Your task to perform on an android device: turn on location history Image 0: 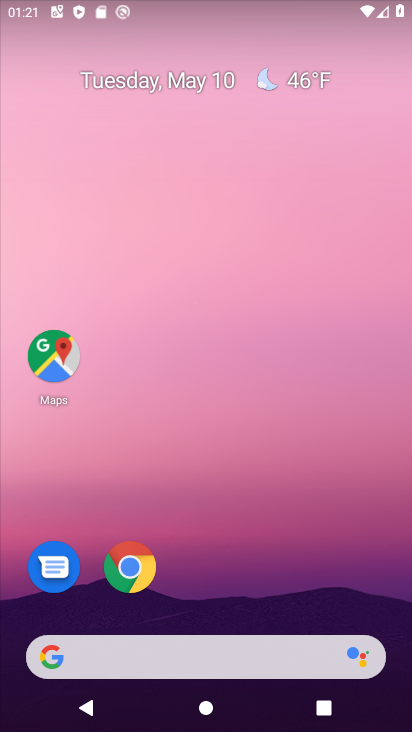
Step 0: drag from (266, 595) to (268, 120)
Your task to perform on an android device: turn on location history Image 1: 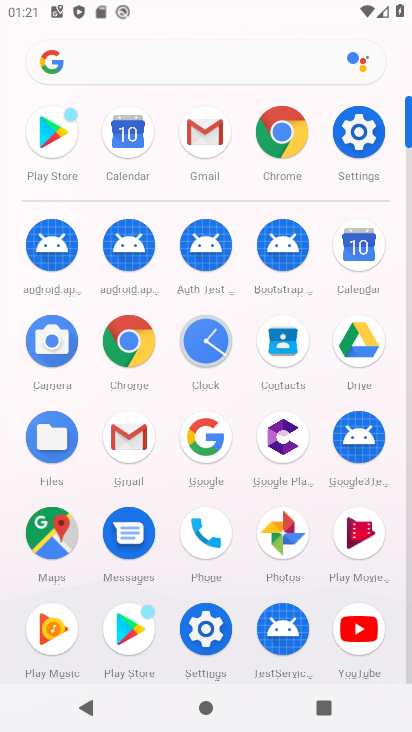
Step 1: click (354, 123)
Your task to perform on an android device: turn on location history Image 2: 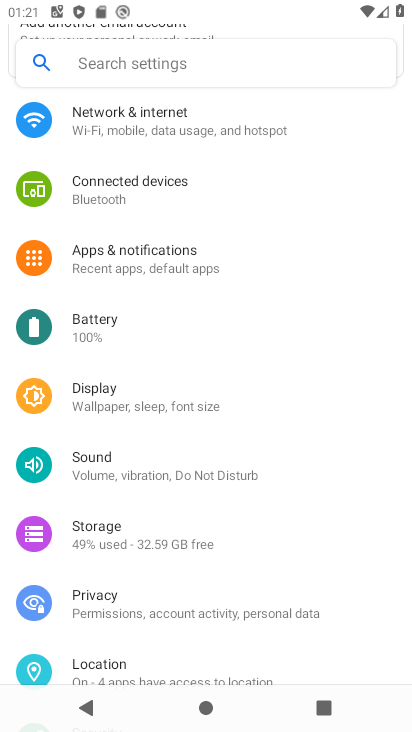
Step 2: click (154, 669)
Your task to perform on an android device: turn on location history Image 3: 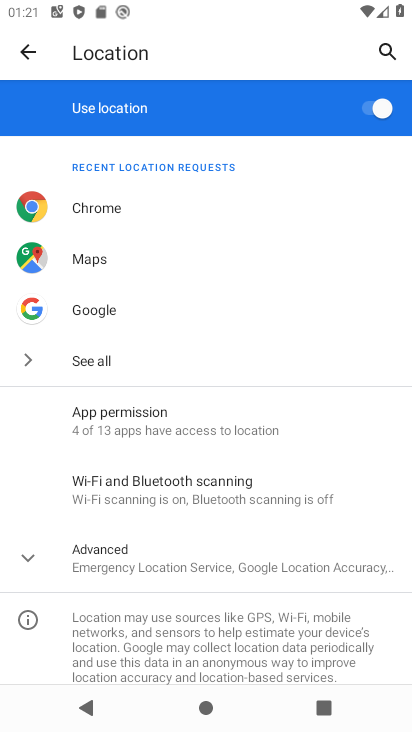
Step 3: click (26, 624)
Your task to perform on an android device: turn on location history Image 4: 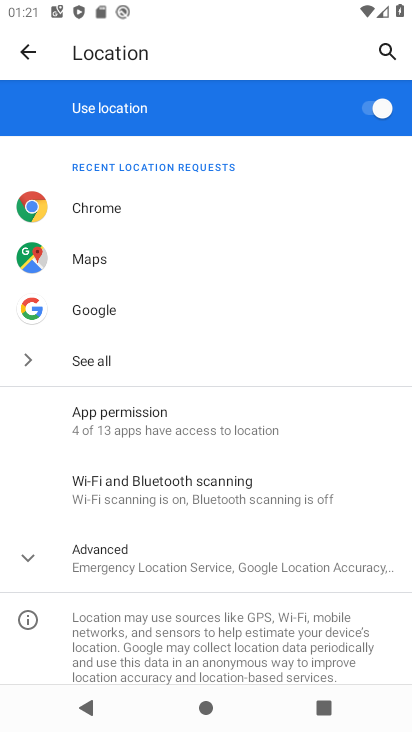
Step 4: drag from (174, 602) to (194, 358)
Your task to perform on an android device: turn on location history Image 5: 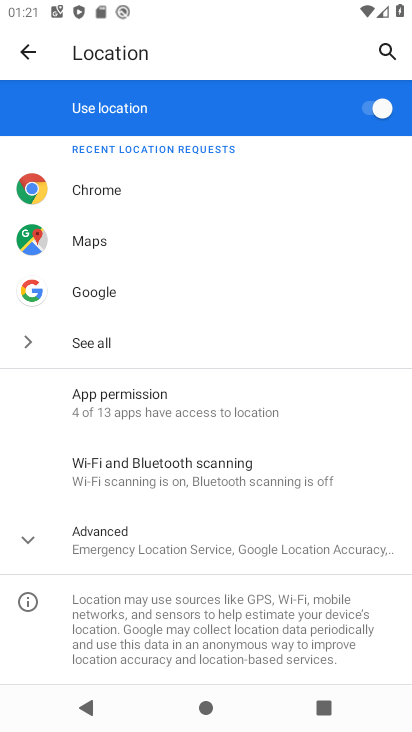
Step 5: click (26, 544)
Your task to perform on an android device: turn on location history Image 6: 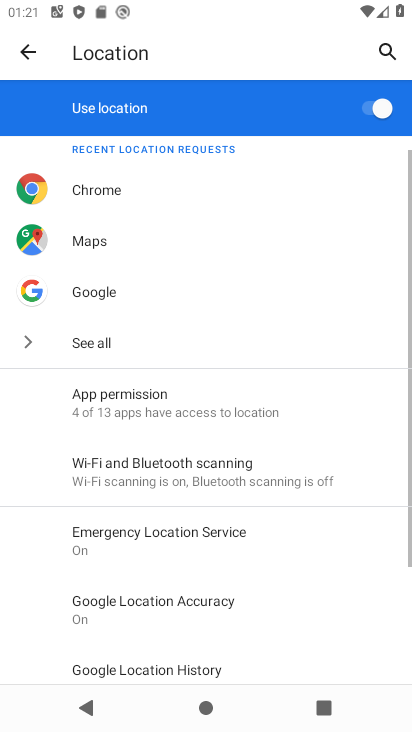
Step 6: drag from (277, 619) to (267, 378)
Your task to perform on an android device: turn on location history Image 7: 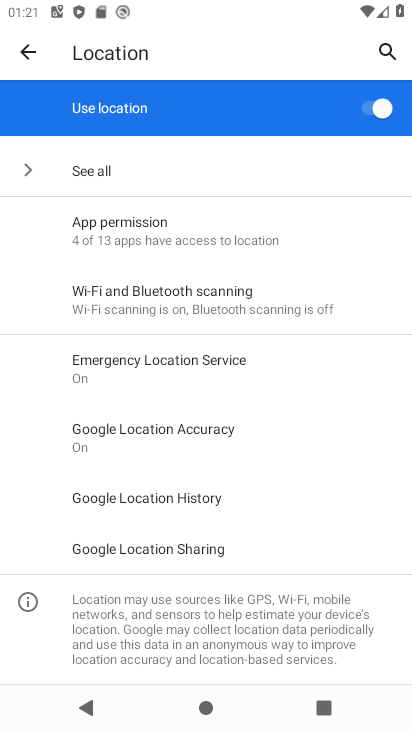
Step 7: click (193, 610)
Your task to perform on an android device: turn on location history Image 8: 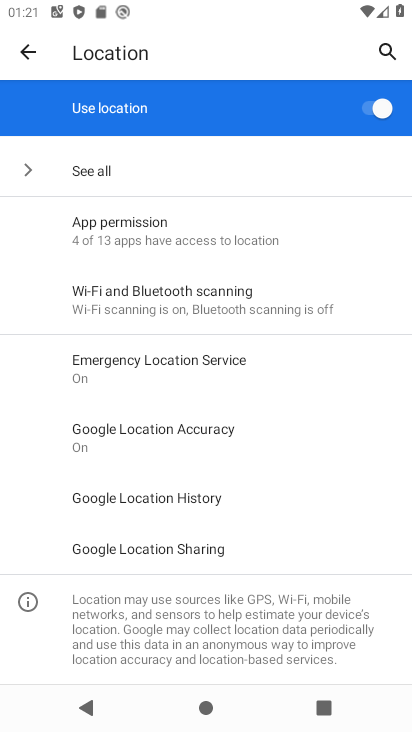
Step 8: click (155, 493)
Your task to perform on an android device: turn on location history Image 9: 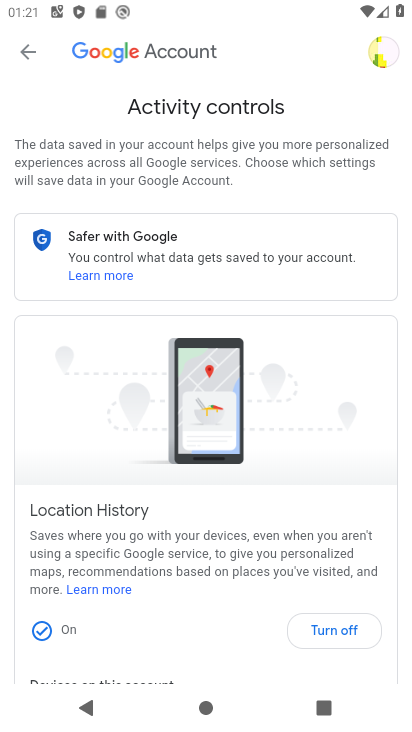
Step 9: task complete